Your task to perform on an android device: Open Reddit.com Image 0: 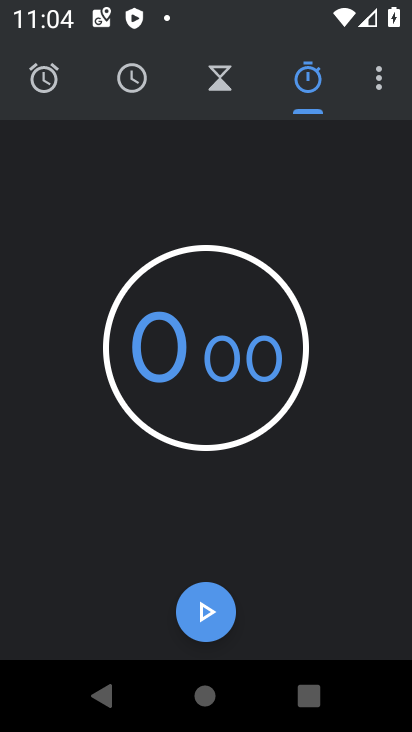
Step 0: press home button
Your task to perform on an android device: Open Reddit.com Image 1: 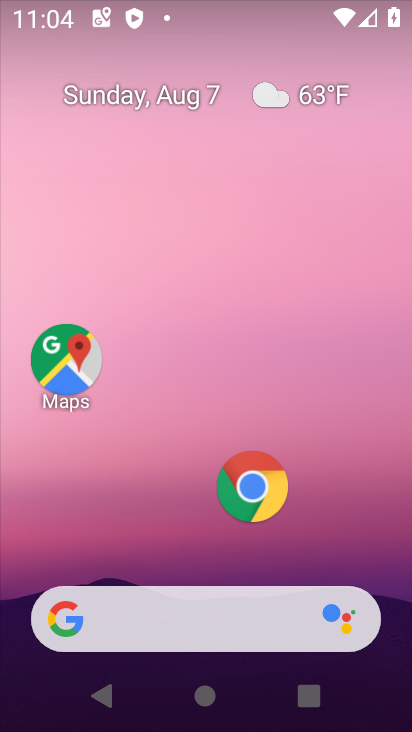
Step 1: click (147, 620)
Your task to perform on an android device: Open Reddit.com Image 2: 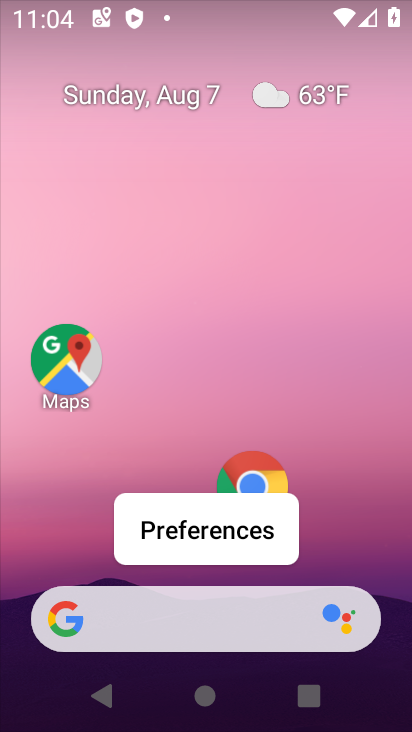
Step 2: click (245, 625)
Your task to perform on an android device: Open Reddit.com Image 3: 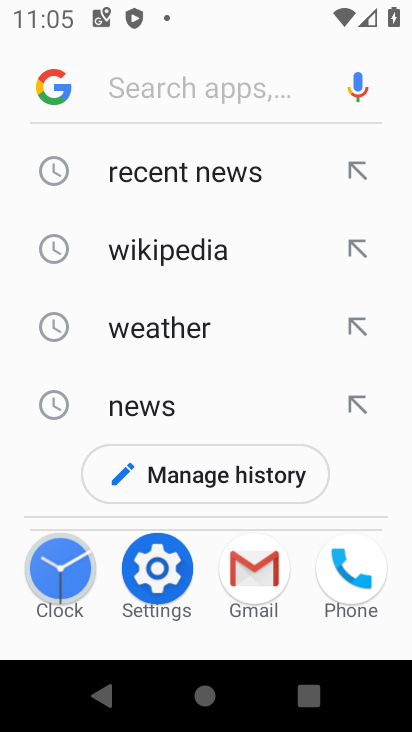
Step 3: type "reddit.com"
Your task to perform on an android device: Open Reddit.com Image 4: 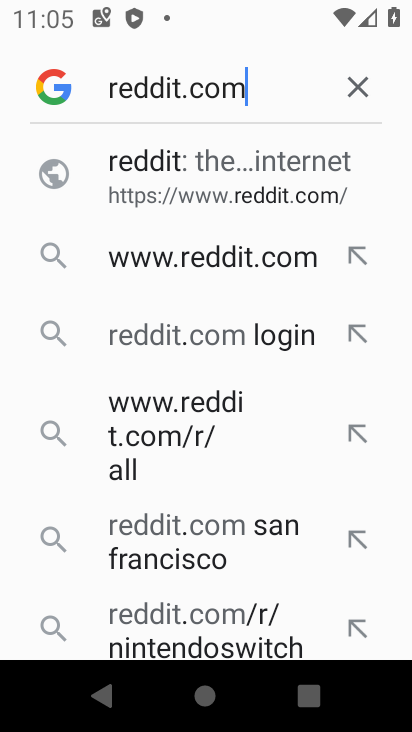
Step 4: click (183, 166)
Your task to perform on an android device: Open Reddit.com Image 5: 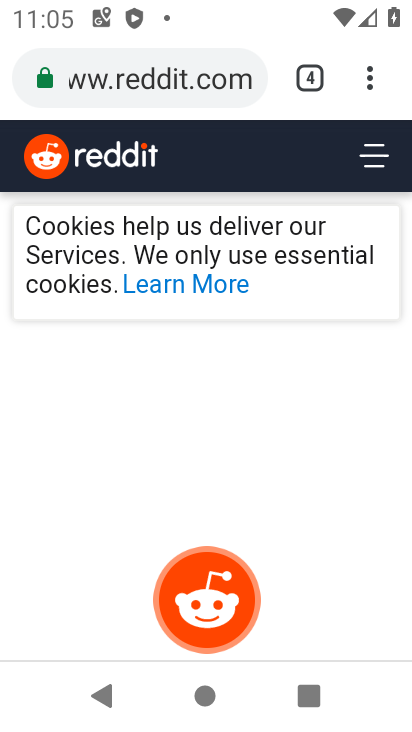
Step 5: task complete